Your task to perform on an android device: Go to privacy settings Image 0: 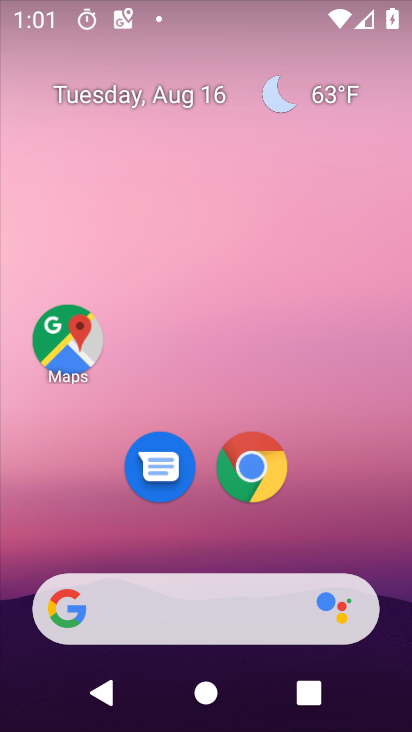
Step 0: press home button
Your task to perform on an android device: Go to privacy settings Image 1: 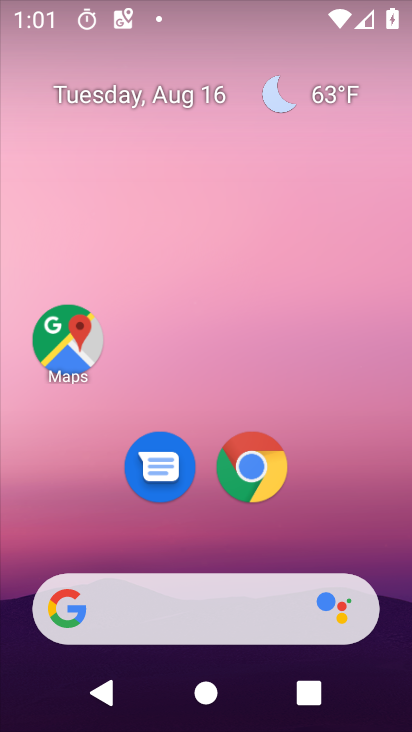
Step 1: drag from (365, 490) to (358, 167)
Your task to perform on an android device: Go to privacy settings Image 2: 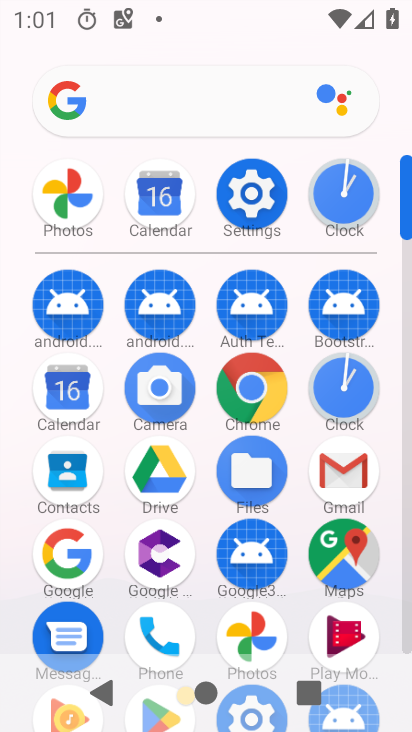
Step 2: click (255, 199)
Your task to perform on an android device: Go to privacy settings Image 3: 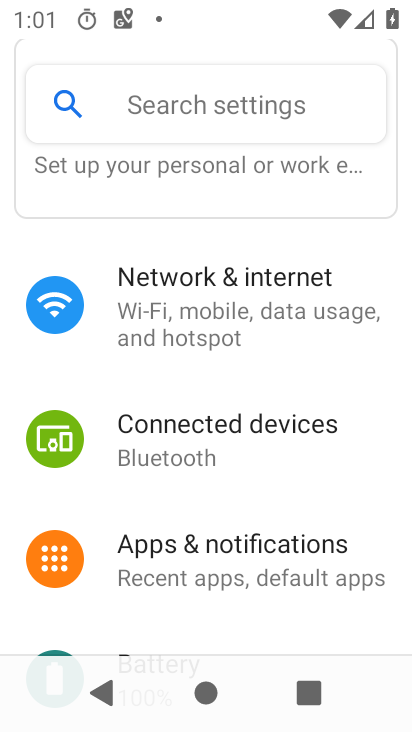
Step 3: drag from (361, 488) to (372, 380)
Your task to perform on an android device: Go to privacy settings Image 4: 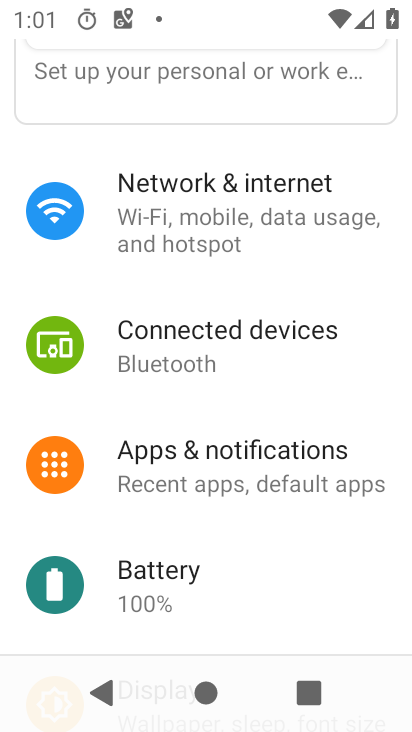
Step 4: drag from (344, 578) to (359, 418)
Your task to perform on an android device: Go to privacy settings Image 5: 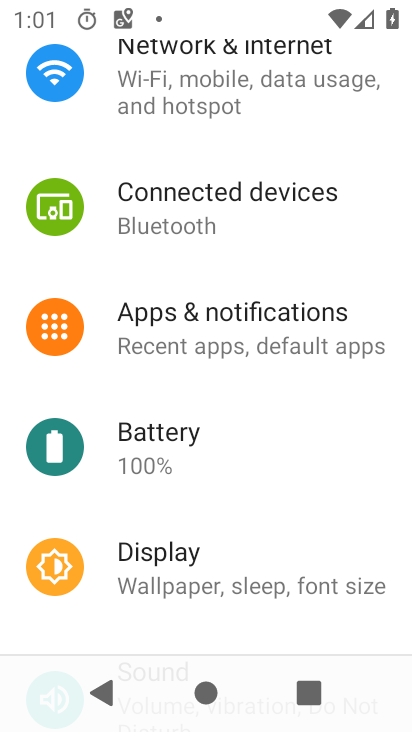
Step 5: drag from (376, 563) to (375, 443)
Your task to perform on an android device: Go to privacy settings Image 6: 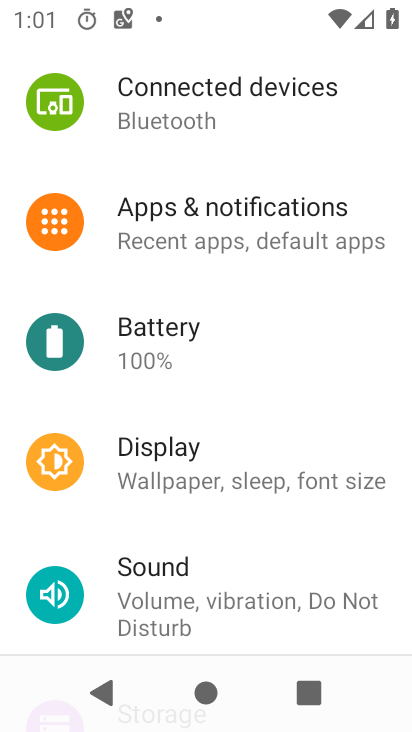
Step 6: drag from (343, 591) to (363, 436)
Your task to perform on an android device: Go to privacy settings Image 7: 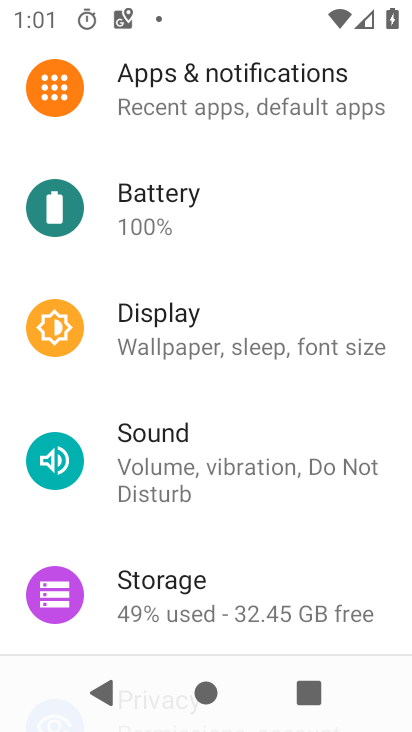
Step 7: drag from (337, 595) to (350, 396)
Your task to perform on an android device: Go to privacy settings Image 8: 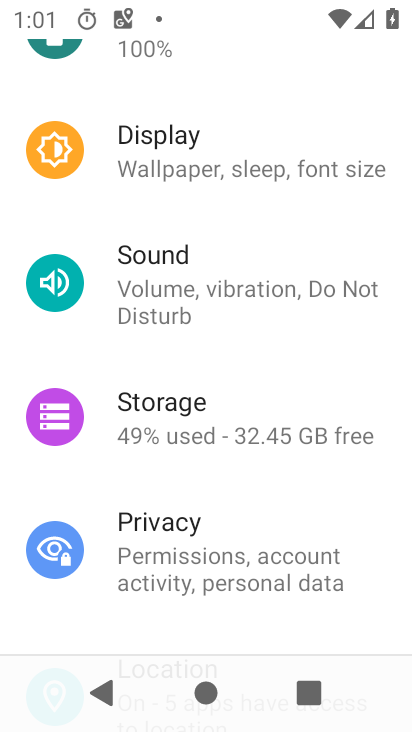
Step 8: drag from (350, 601) to (371, 416)
Your task to perform on an android device: Go to privacy settings Image 9: 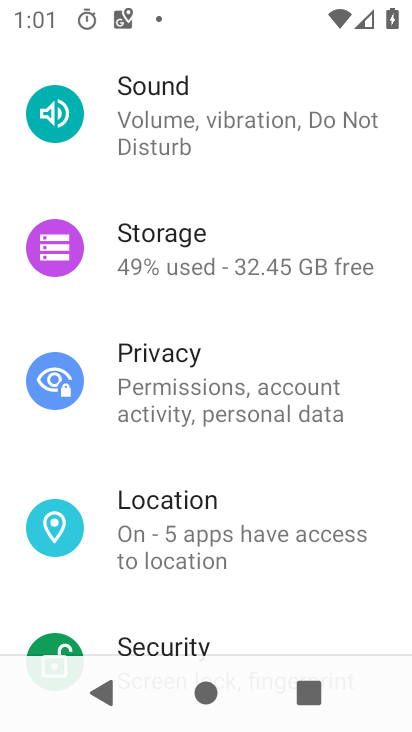
Step 9: drag from (360, 593) to (376, 390)
Your task to perform on an android device: Go to privacy settings Image 10: 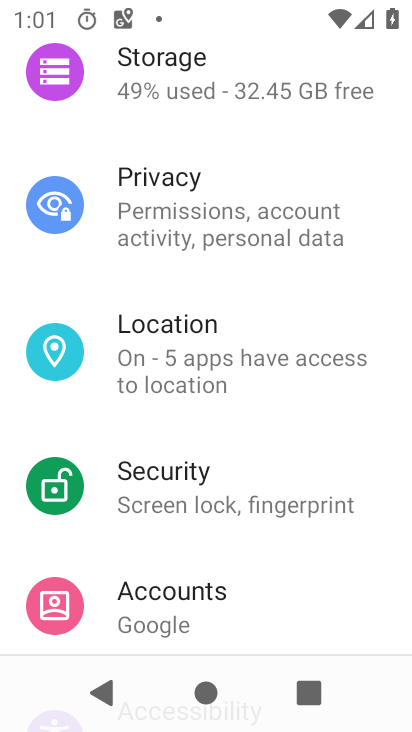
Step 10: drag from (350, 578) to (366, 402)
Your task to perform on an android device: Go to privacy settings Image 11: 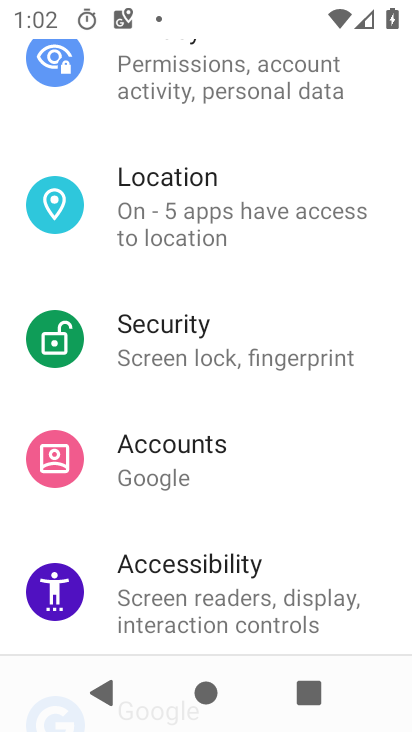
Step 11: drag from (358, 635) to (378, 429)
Your task to perform on an android device: Go to privacy settings Image 12: 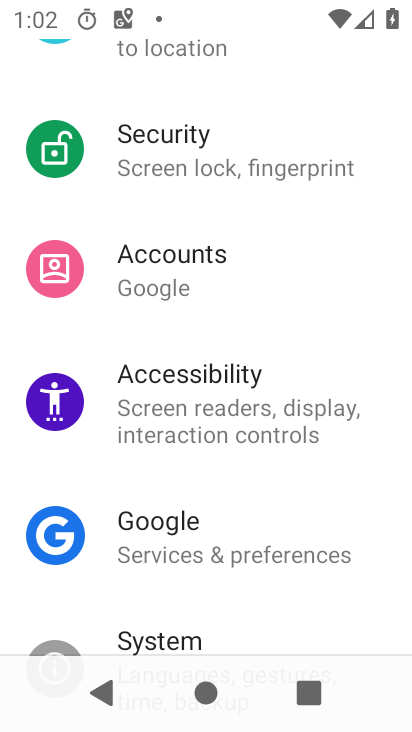
Step 12: drag from (354, 637) to (369, 458)
Your task to perform on an android device: Go to privacy settings Image 13: 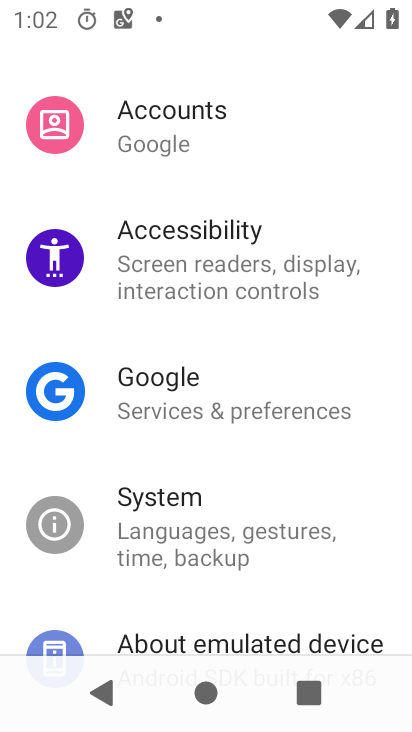
Step 13: drag from (381, 287) to (384, 416)
Your task to perform on an android device: Go to privacy settings Image 14: 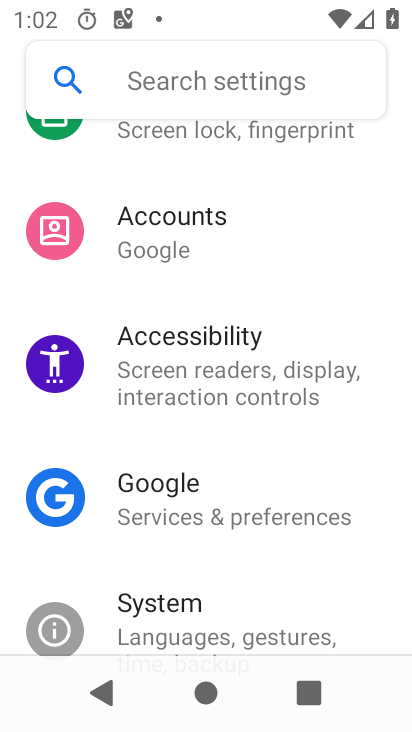
Step 14: drag from (379, 274) to (379, 379)
Your task to perform on an android device: Go to privacy settings Image 15: 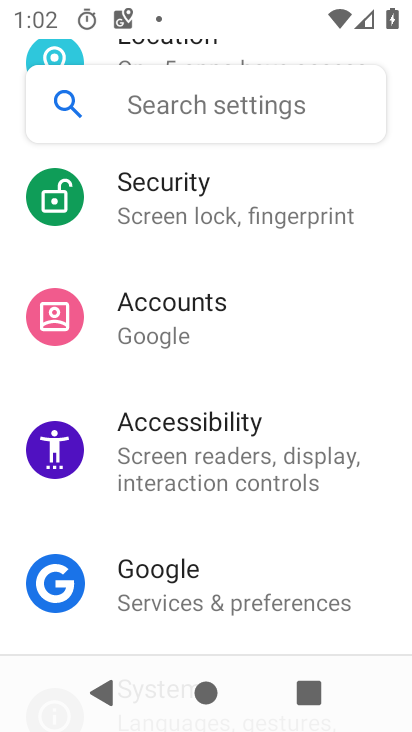
Step 15: drag from (376, 241) to (367, 376)
Your task to perform on an android device: Go to privacy settings Image 16: 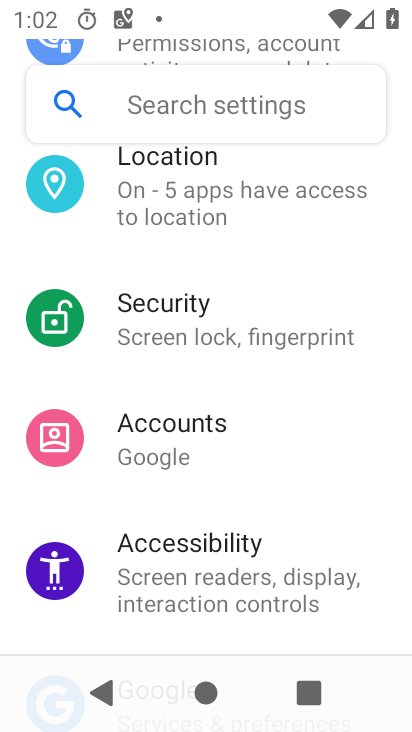
Step 16: drag from (385, 202) to (380, 354)
Your task to perform on an android device: Go to privacy settings Image 17: 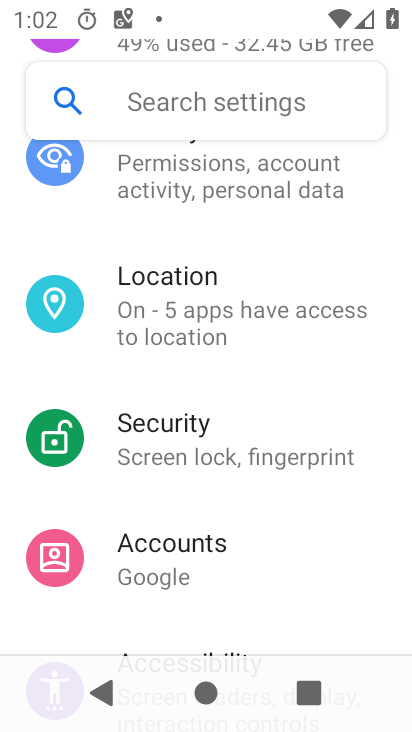
Step 17: drag from (383, 159) to (380, 320)
Your task to perform on an android device: Go to privacy settings Image 18: 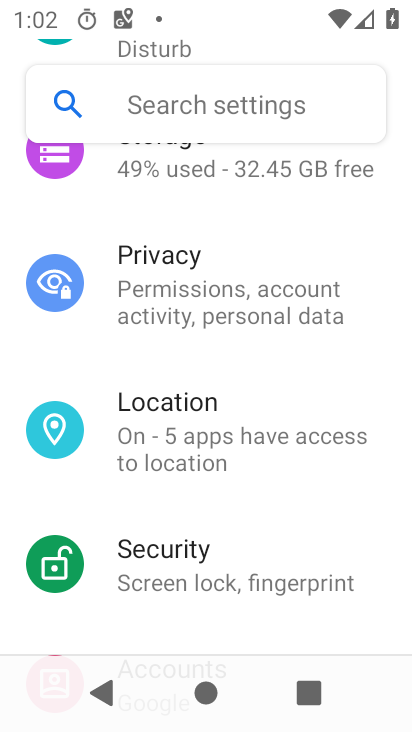
Step 18: drag from (377, 215) to (378, 339)
Your task to perform on an android device: Go to privacy settings Image 19: 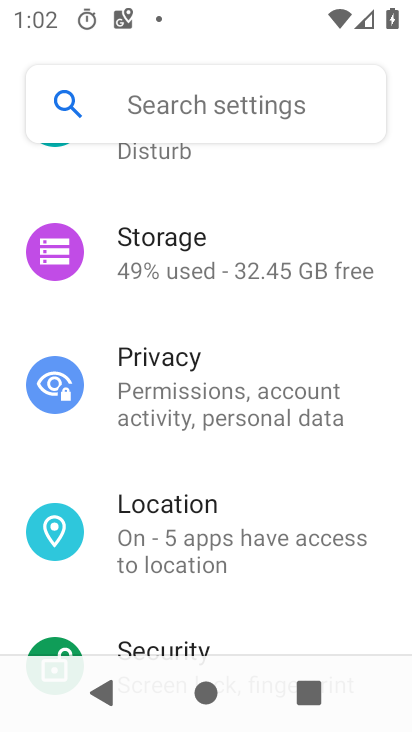
Step 19: click (330, 377)
Your task to perform on an android device: Go to privacy settings Image 20: 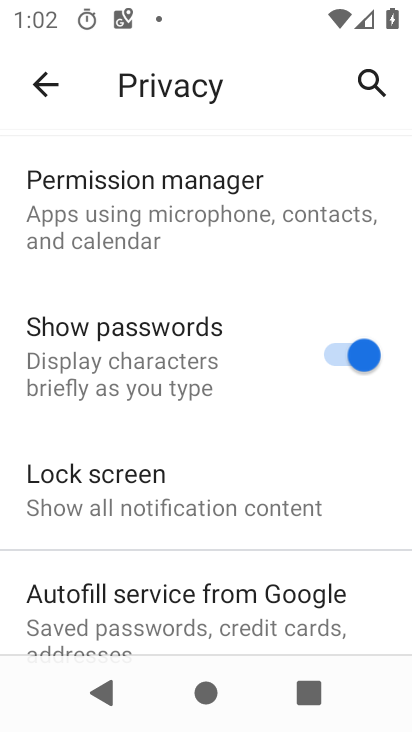
Step 20: task complete